Your task to perform on an android device: Open Chrome and go to settings Image 0: 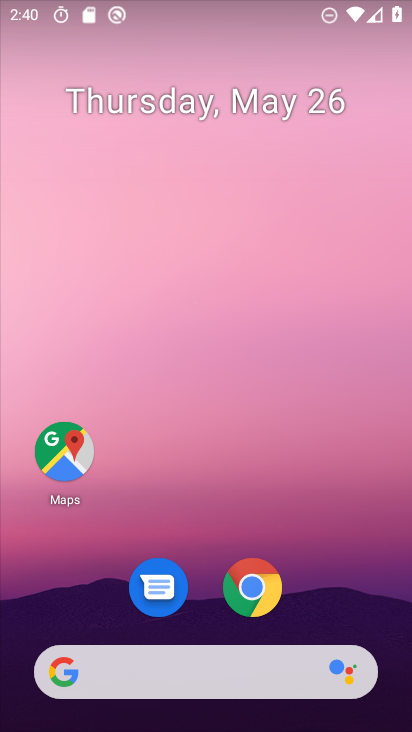
Step 0: click (258, 589)
Your task to perform on an android device: Open Chrome and go to settings Image 1: 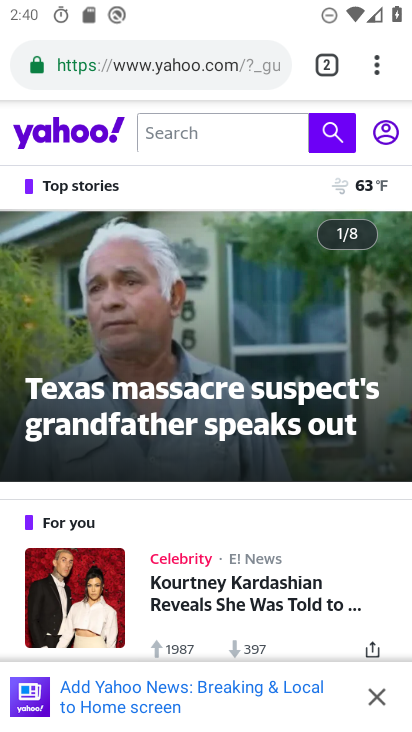
Step 1: task complete